Your task to perform on an android device: allow cookies in the chrome app Image 0: 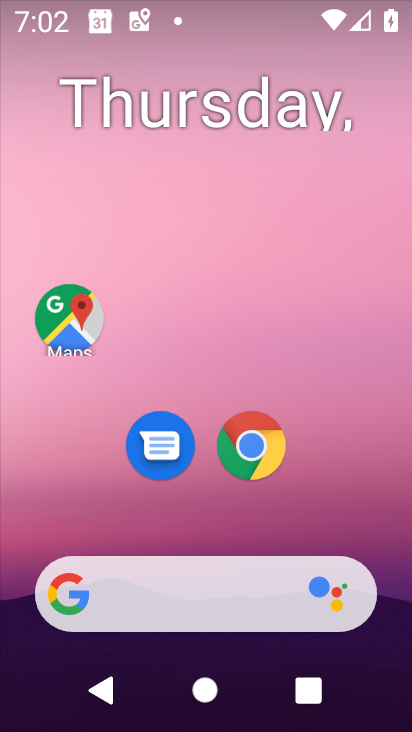
Step 0: drag from (386, 634) to (212, 61)
Your task to perform on an android device: allow cookies in the chrome app Image 1: 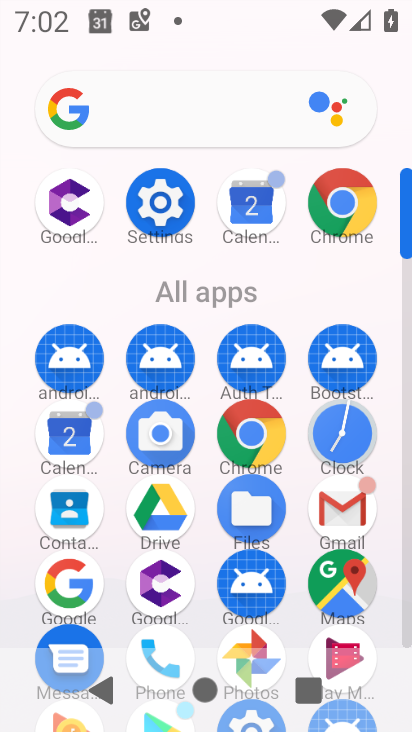
Step 1: click (342, 203)
Your task to perform on an android device: allow cookies in the chrome app Image 2: 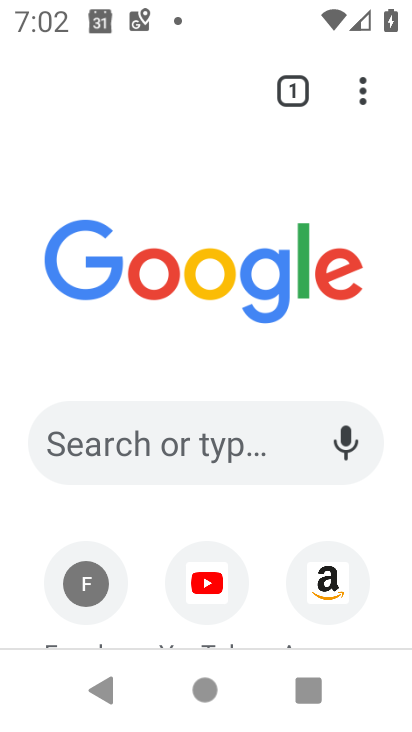
Step 2: click (365, 76)
Your task to perform on an android device: allow cookies in the chrome app Image 3: 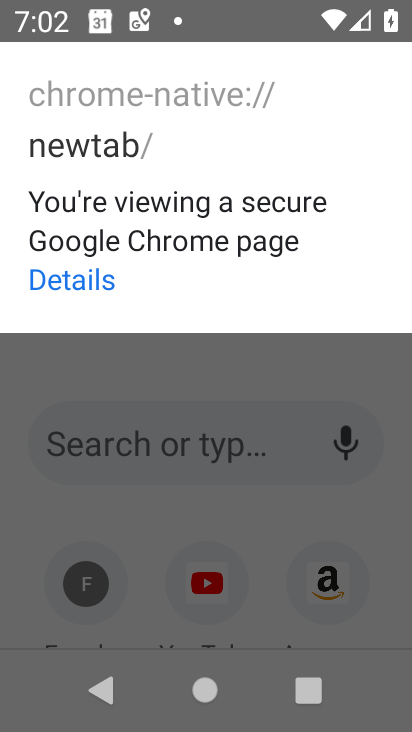
Step 3: press back button
Your task to perform on an android device: allow cookies in the chrome app Image 4: 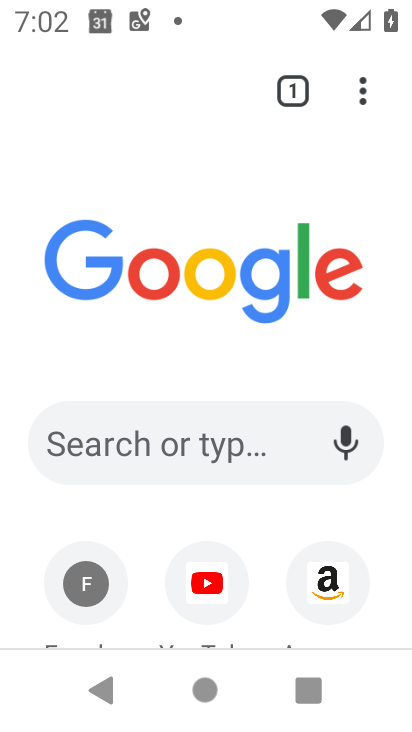
Step 4: click (352, 92)
Your task to perform on an android device: allow cookies in the chrome app Image 5: 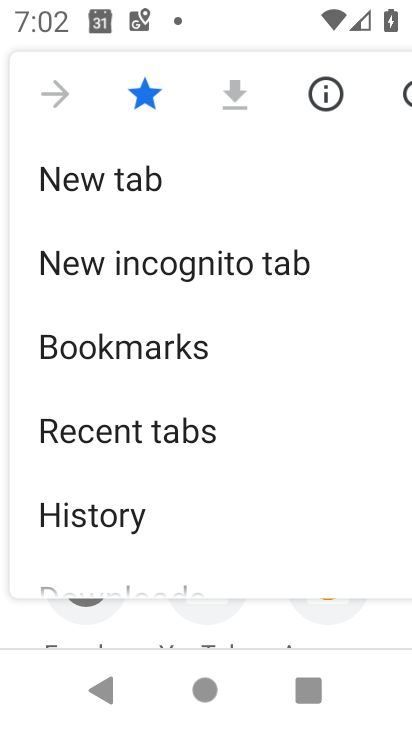
Step 5: click (196, 517)
Your task to perform on an android device: allow cookies in the chrome app Image 6: 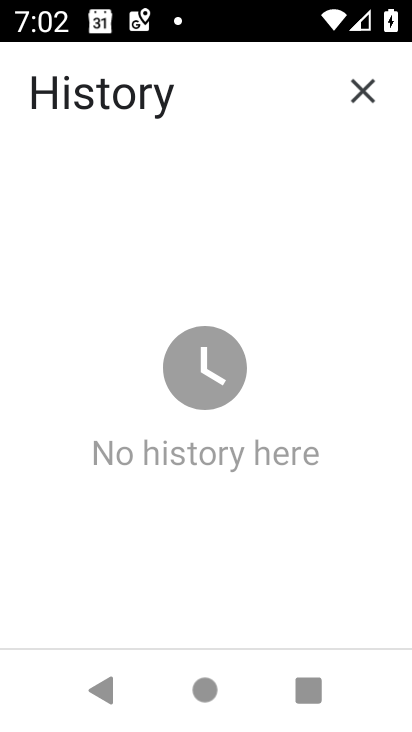
Step 6: task complete